Your task to perform on an android device: turn pop-ups on in chrome Image 0: 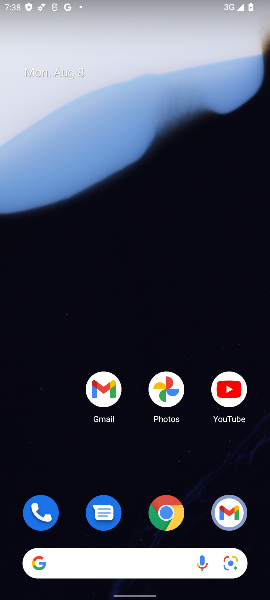
Step 0: click (171, 509)
Your task to perform on an android device: turn pop-ups on in chrome Image 1: 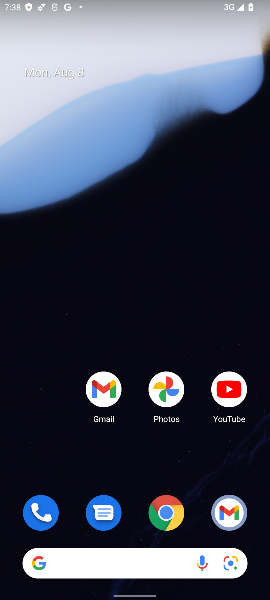
Step 1: click (171, 509)
Your task to perform on an android device: turn pop-ups on in chrome Image 2: 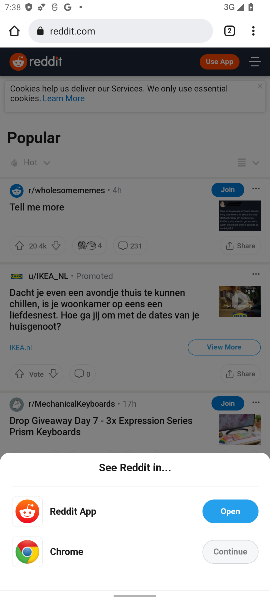
Step 2: click (246, 29)
Your task to perform on an android device: turn pop-ups on in chrome Image 3: 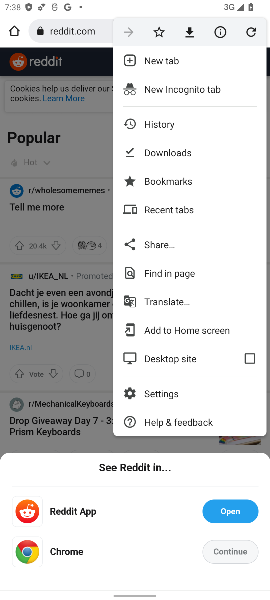
Step 3: click (167, 392)
Your task to perform on an android device: turn pop-ups on in chrome Image 4: 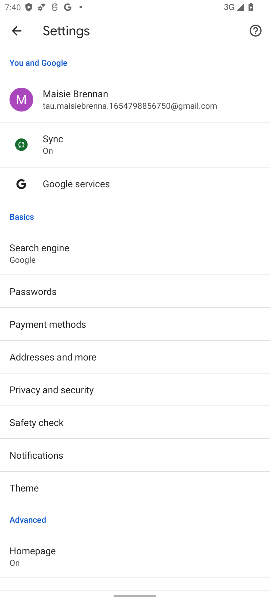
Step 4: drag from (116, 541) to (203, 93)
Your task to perform on an android device: turn pop-ups on in chrome Image 5: 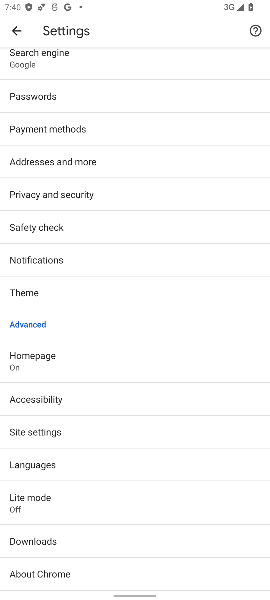
Step 5: click (76, 436)
Your task to perform on an android device: turn pop-ups on in chrome Image 6: 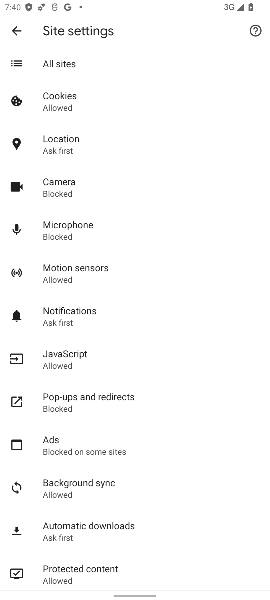
Step 6: click (132, 400)
Your task to perform on an android device: turn pop-ups on in chrome Image 7: 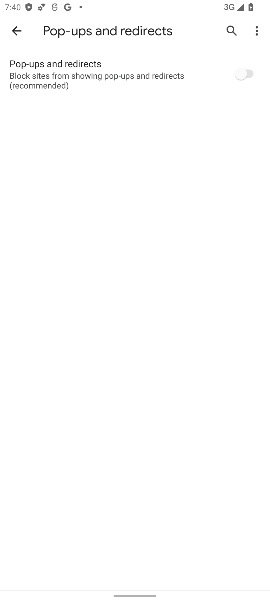
Step 7: click (238, 74)
Your task to perform on an android device: turn pop-ups on in chrome Image 8: 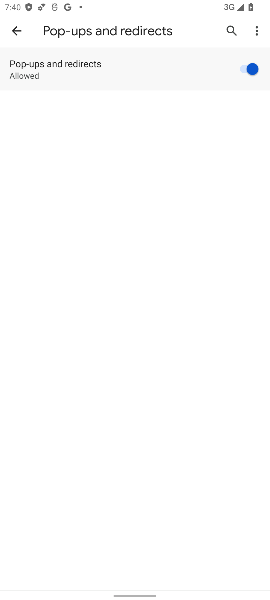
Step 8: task complete